Your task to perform on an android device: Is it going to rain tomorrow? Image 0: 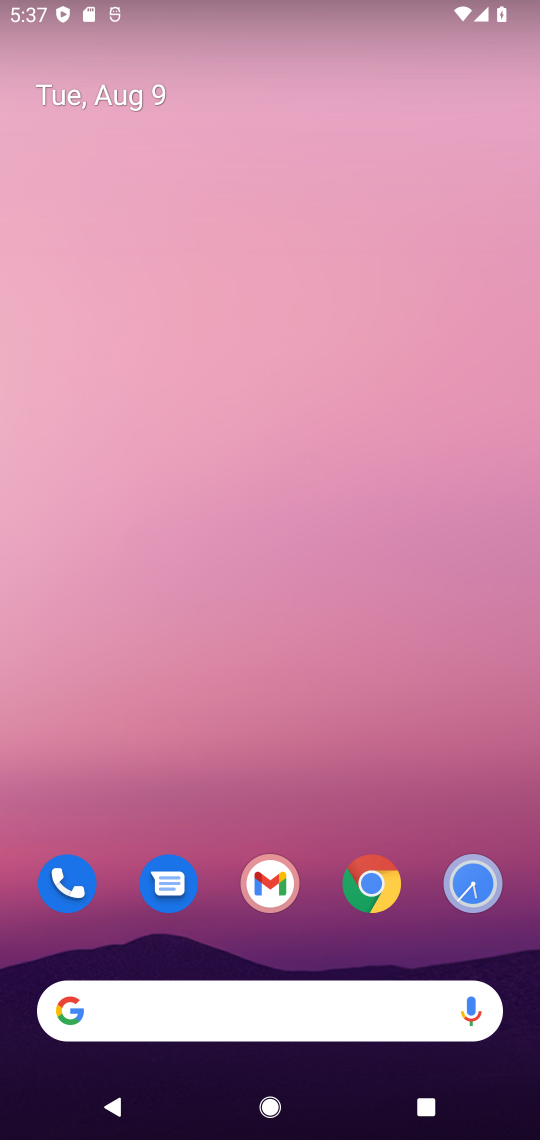
Step 0: drag from (283, 769) to (283, 64)
Your task to perform on an android device: Is it going to rain tomorrow? Image 1: 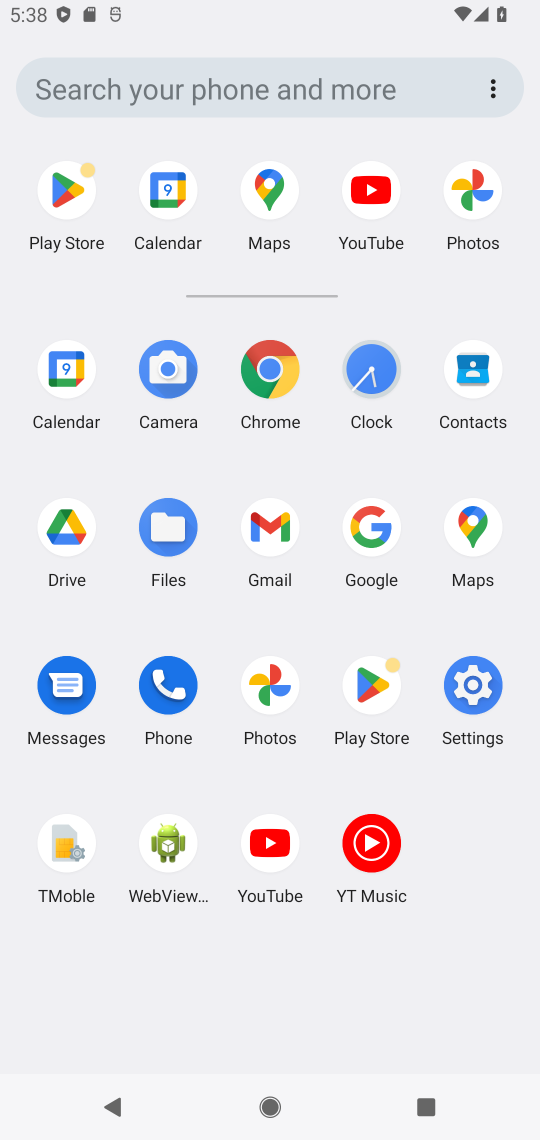
Step 1: click (366, 516)
Your task to perform on an android device: Is it going to rain tomorrow? Image 2: 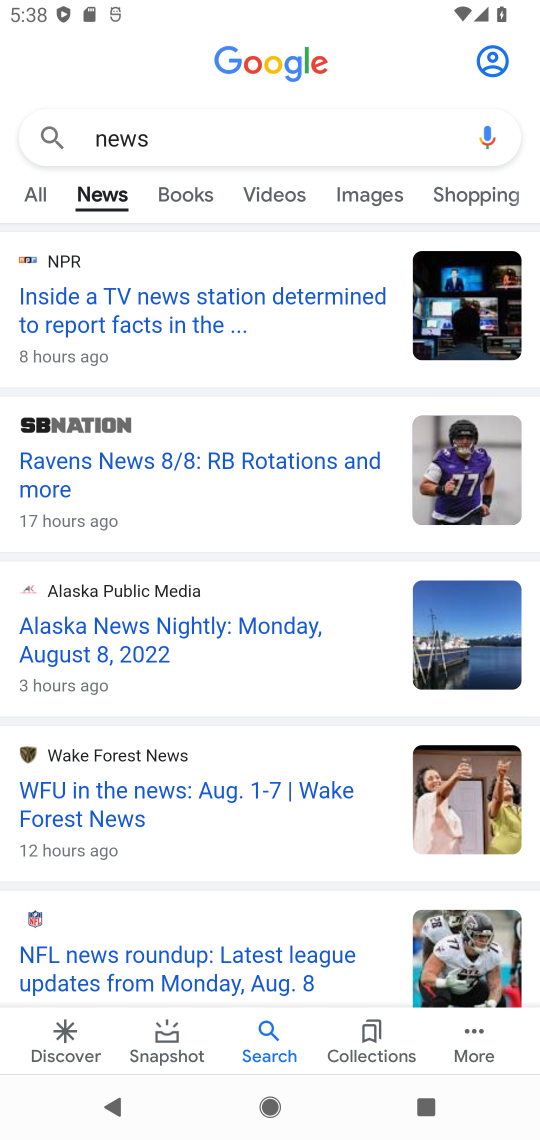
Step 2: click (36, 188)
Your task to perform on an android device: Is it going to rain tomorrow? Image 3: 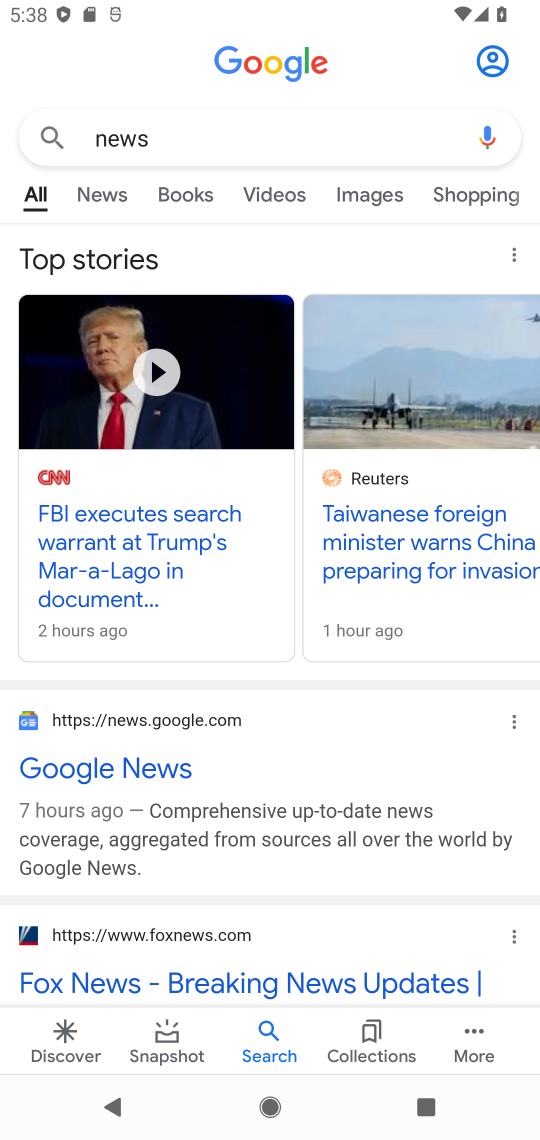
Step 3: click (218, 142)
Your task to perform on an android device: Is it going to rain tomorrow? Image 4: 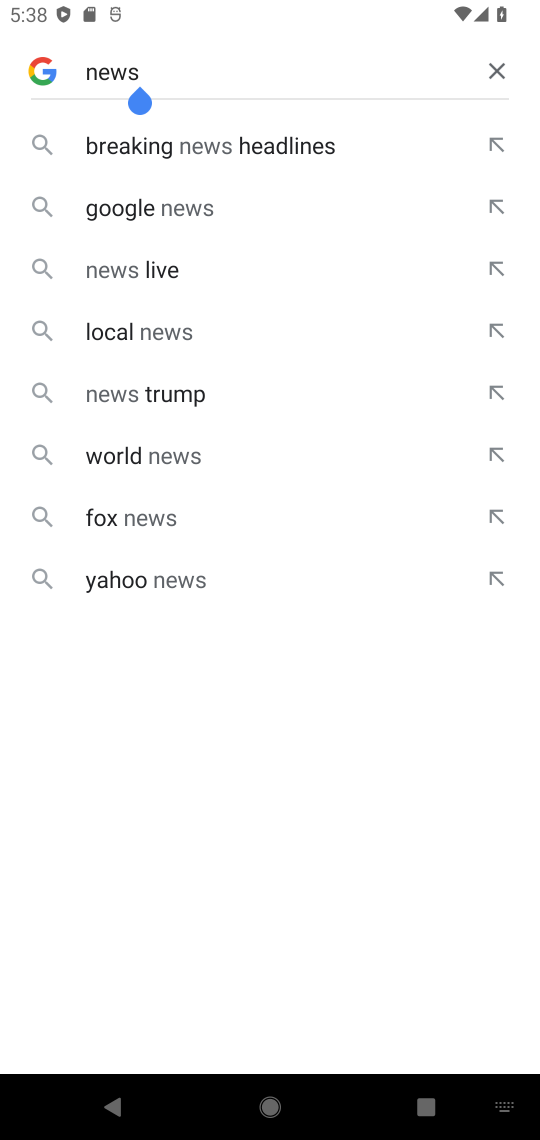
Step 4: click (491, 59)
Your task to perform on an android device: Is it going to rain tomorrow? Image 5: 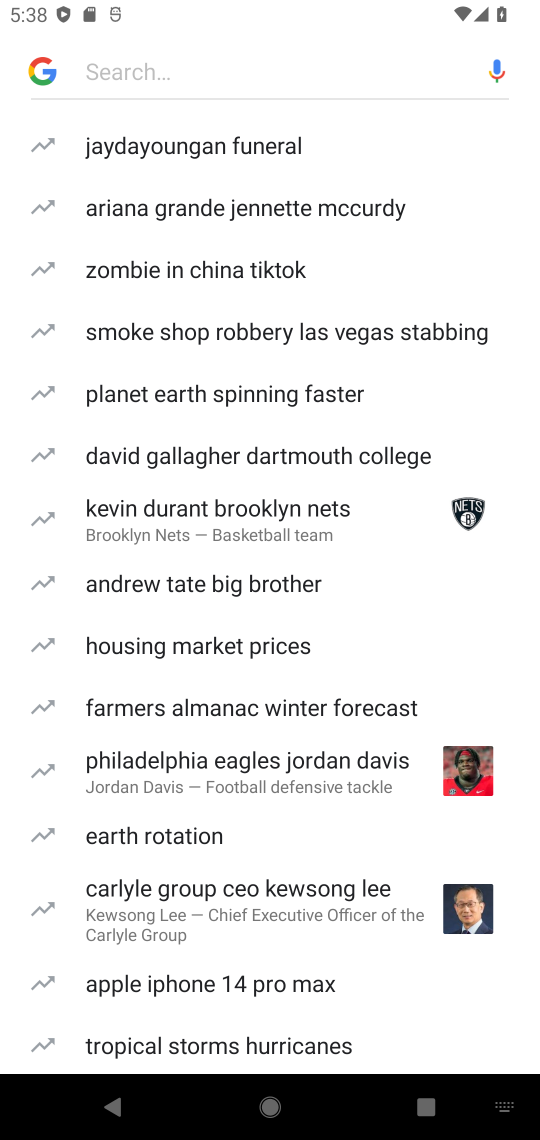
Step 5: type "weather"
Your task to perform on an android device: Is it going to rain tomorrow? Image 6: 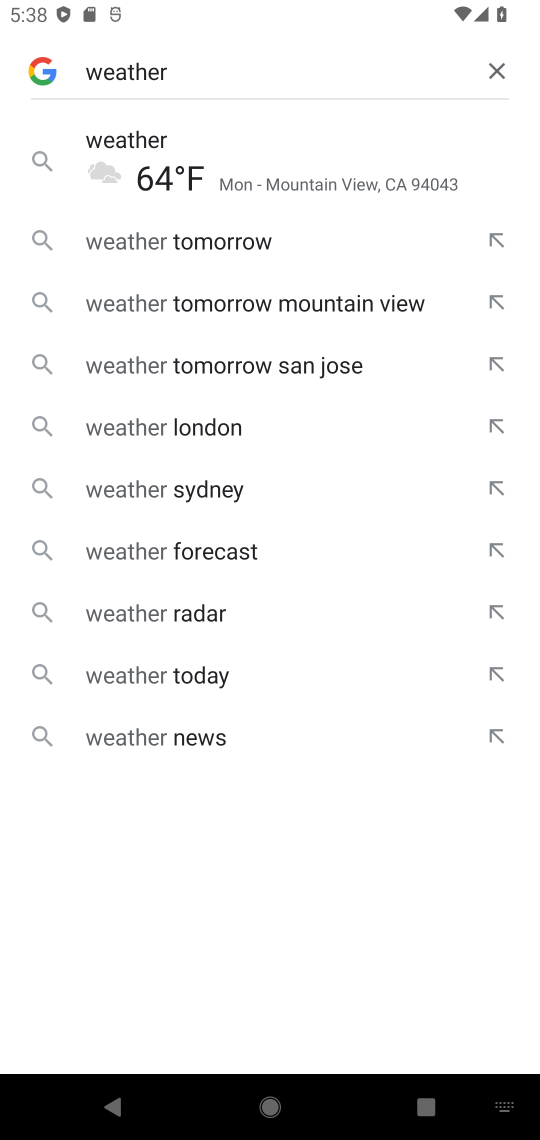
Step 6: click (308, 184)
Your task to perform on an android device: Is it going to rain tomorrow? Image 7: 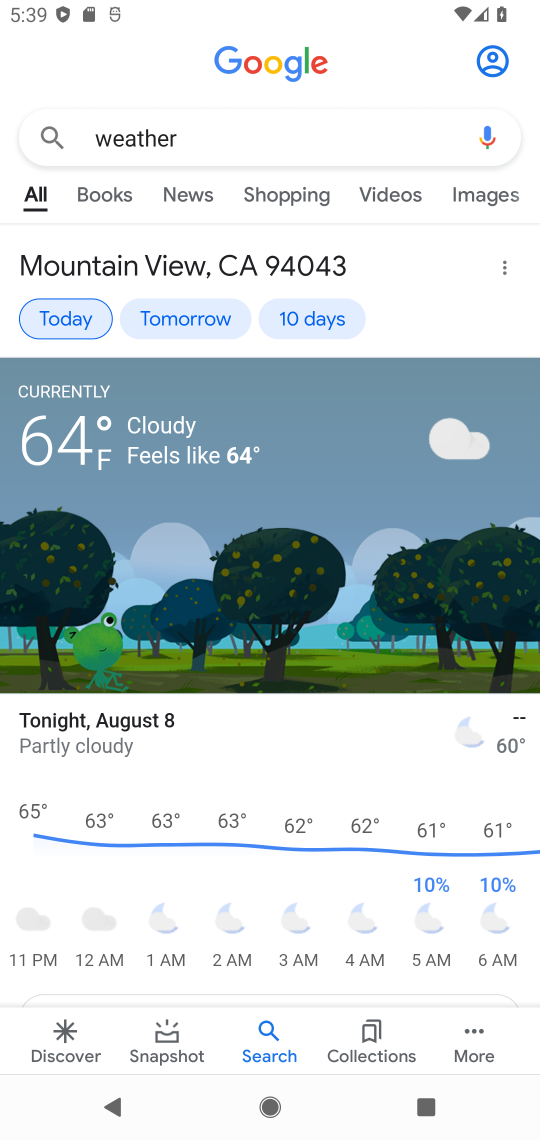
Step 7: click (158, 315)
Your task to perform on an android device: Is it going to rain tomorrow? Image 8: 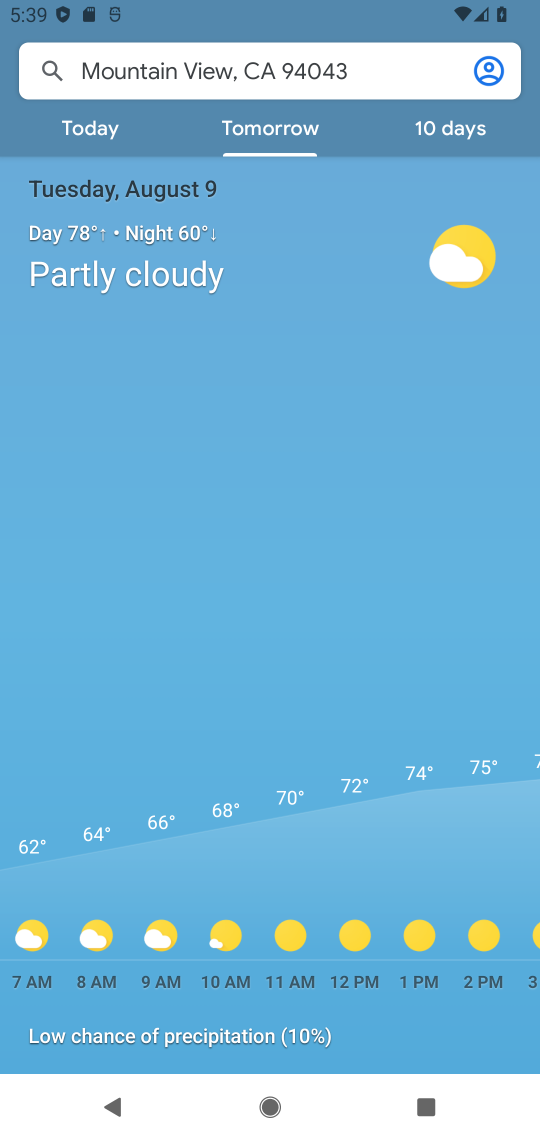
Step 8: task complete